Your task to perform on an android device: toggle location history Image 0: 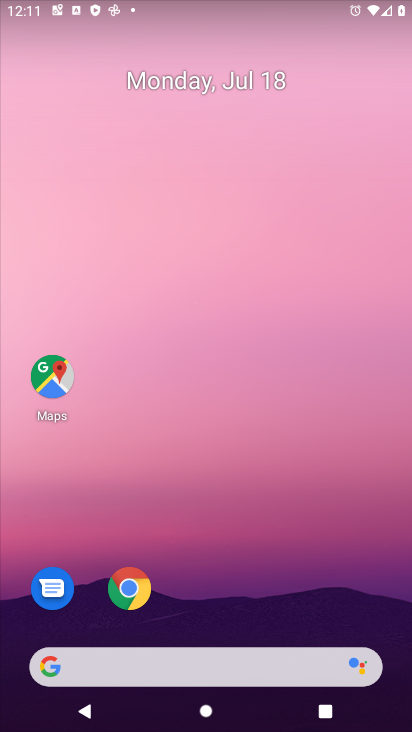
Step 0: drag from (255, 642) to (334, 63)
Your task to perform on an android device: toggle location history Image 1: 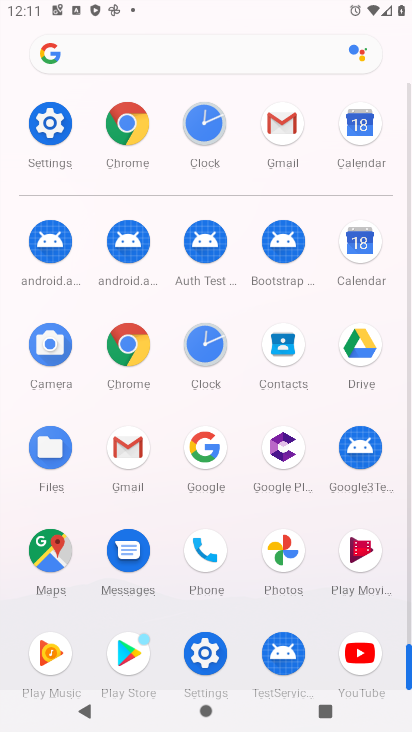
Step 1: click (39, 111)
Your task to perform on an android device: toggle location history Image 2: 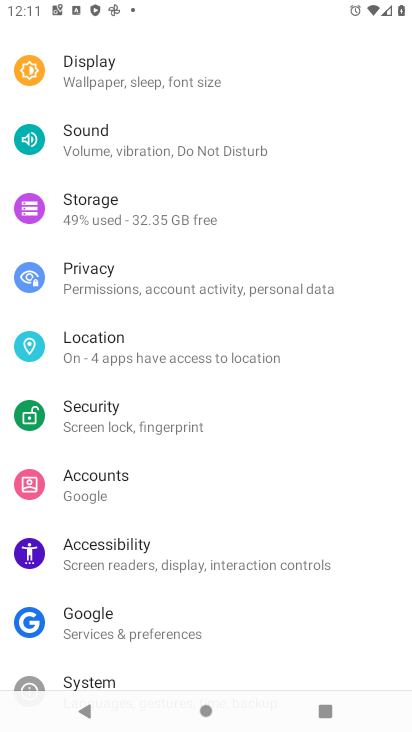
Step 2: click (162, 363)
Your task to perform on an android device: toggle location history Image 3: 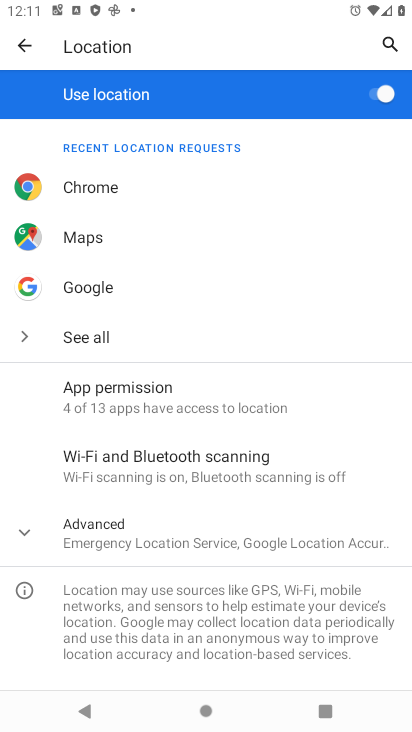
Step 3: click (177, 527)
Your task to perform on an android device: toggle location history Image 4: 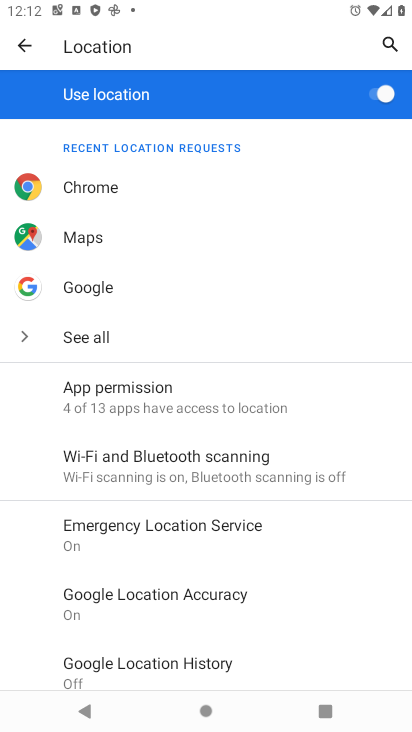
Step 4: drag from (238, 645) to (267, 468)
Your task to perform on an android device: toggle location history Image 5: 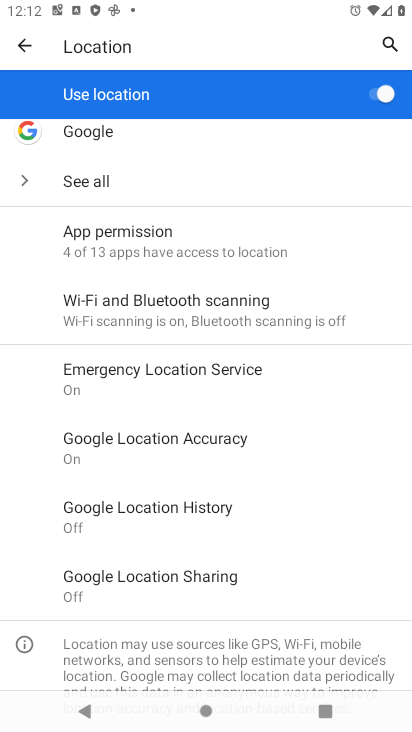
Step 5: click (179, 515)
Your task to perform on an android device: toggle location history Image 6: 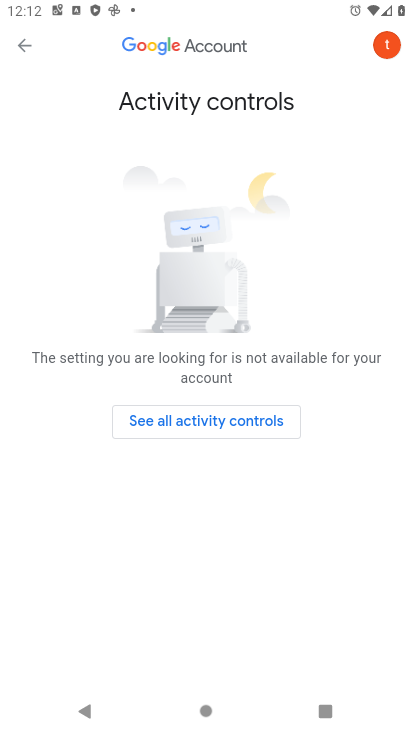
Step 6: task complete